Your task to perform on an android device: Show the shopping cart on costco.com. Search for "usb-a to usb-b" on costco.com, select the first entry, add it to the cart, then select checkout. Image 0: 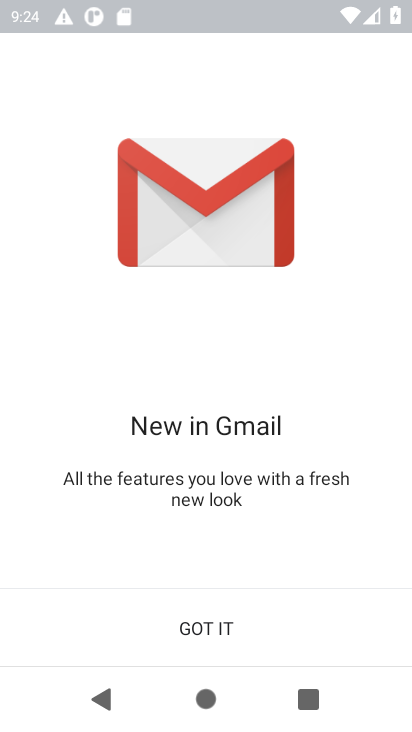
Step 0: press home button
Your task to perform on an android device: Show the shopping cart on costco.com. Search for "usb-a to usb-b" on costco.com, select the first entry, add it to the cart, then select checkout. Image 1: 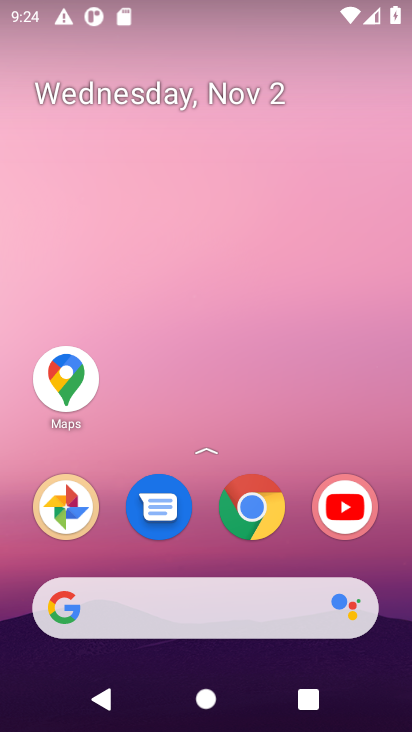
Step 1: click (221, 597)
Your task to perform on an android device: Show the shopping cart on costco.com. Search for "usb-a to usb-b" on costco.com, select the first entry, add it to the cart, then select checkout. Image 2: 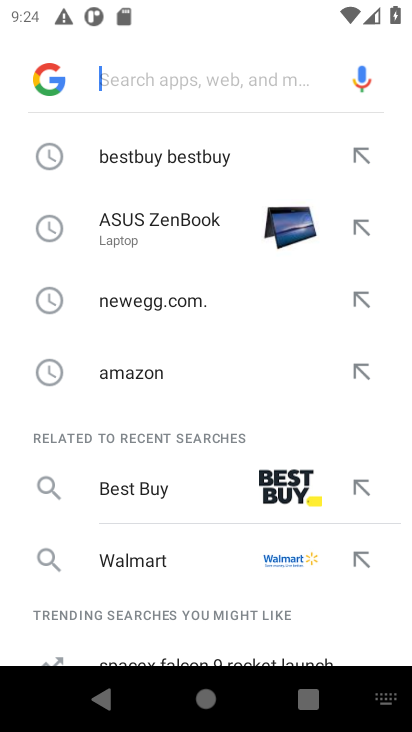
Step 2: type "costco"
Your task to perform on an android device: Show the shopping cart on costco.com. Search for "usb-a to usb-b" on costco.com, select the first entry, add it to the cart, then select checkout. Image 3: 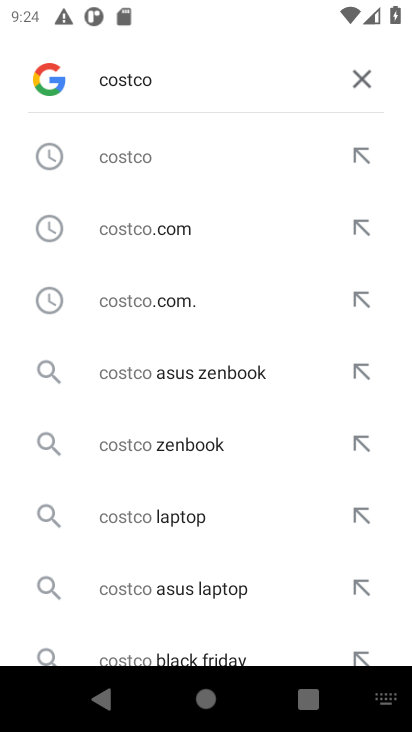
Step 3: click (119, 163)
Your task to perform on an android device: Show the shopping cart on costco.com. Search for "usb-a to usb-b" on costco.com, select the first entry, add it to the cart, then select checkout. Image 4: 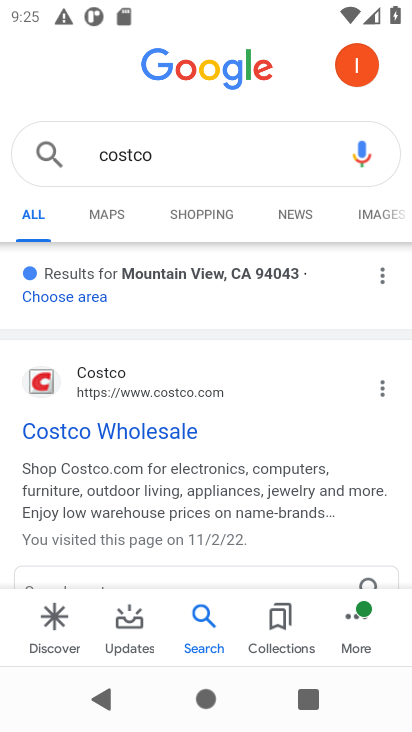
Step 4: click (96, 436)
Your task to perform on an android device: Show the shopping cart on costco.com. Search for "usb-a to usb-b" on costco.com, select the first entry, add it to the cart, then select checkout. Image 5: 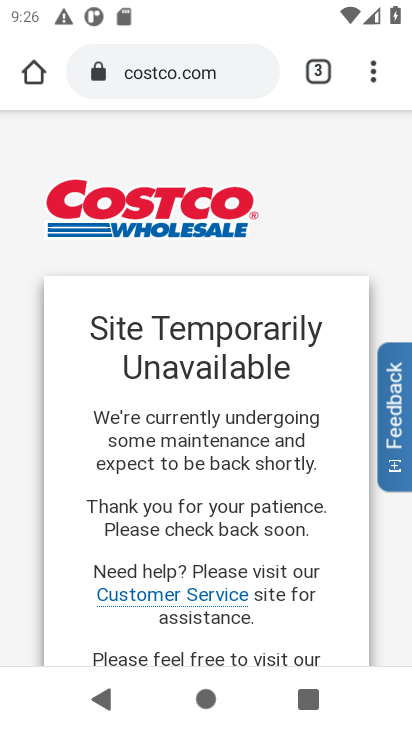
Step 5: task complete